Your task to perform on an android device: turn notification dots on Image 0: 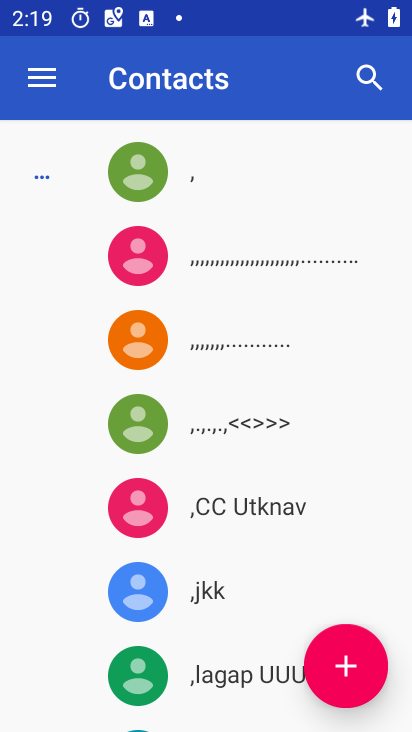
Step 0: press home button
Your task to perform on an android device: turn notification dots on Image 1: 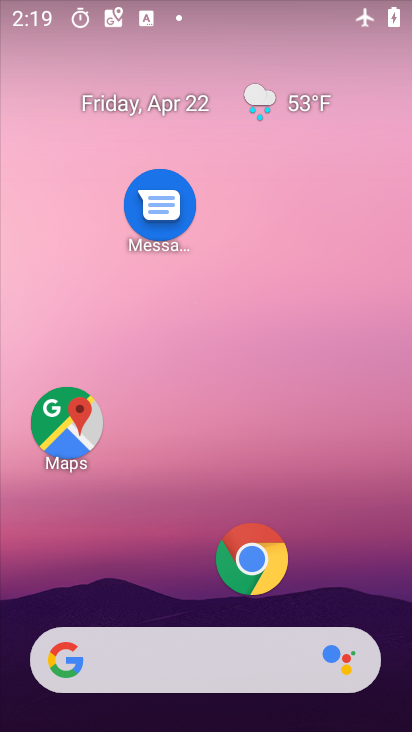
Step 1: drag from (170, 405) to (179, 217)
Your task to perform on an android device: turn notification dots on Image 2: 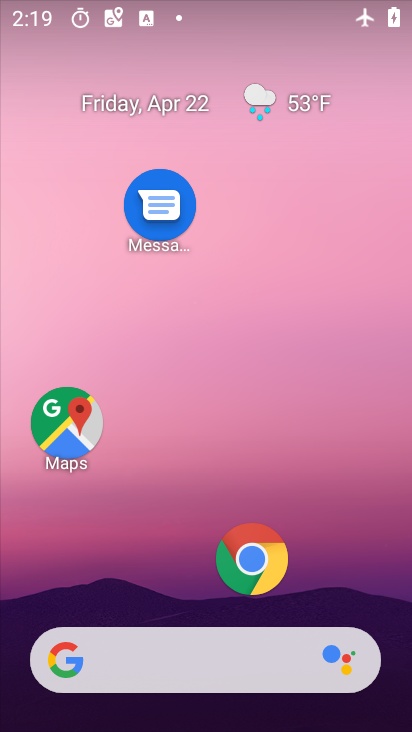
Step 2: drag from (184, 585) to (161, 53)
Your task to perform on an android device: turn notification dots on Image 3: 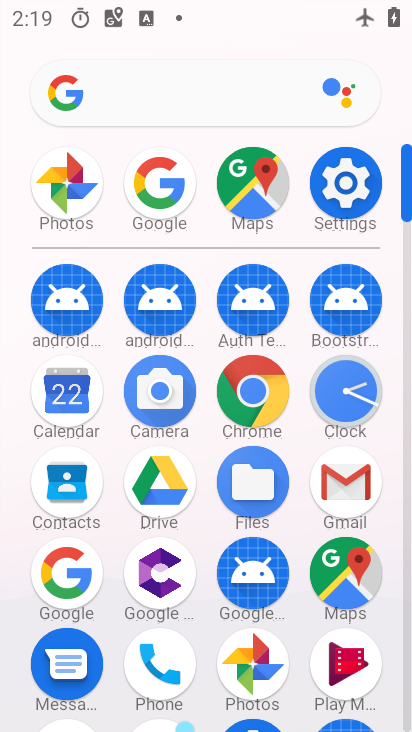
Step 3: click (364, 187)
Your task to perform on an android device: turn notification dots on Image 4: 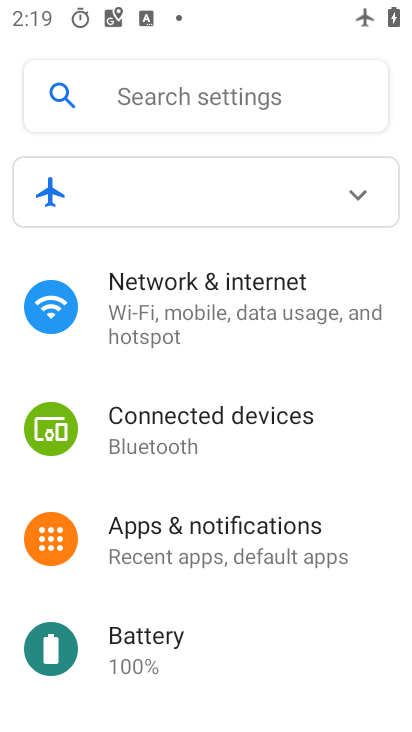
Step 4: click (179, 536)
Your task to perform on an android device: turn notification dots on Image 5: 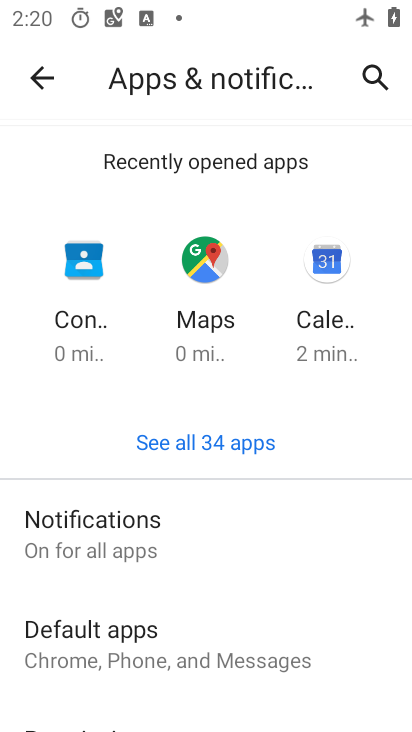
Step 5: drag from (407, 495) to (374, 389)
Your task to perform on an android device: turn notification dots on Image 6: 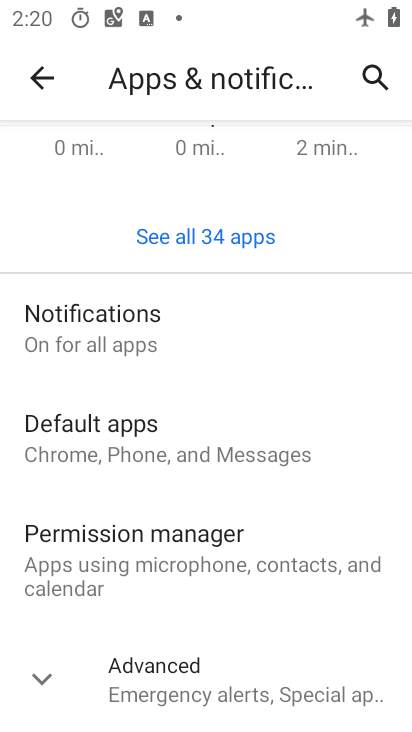
Step 6: click (121, 321)
Your task to perform on an android device: turn notification dots on Image 7: 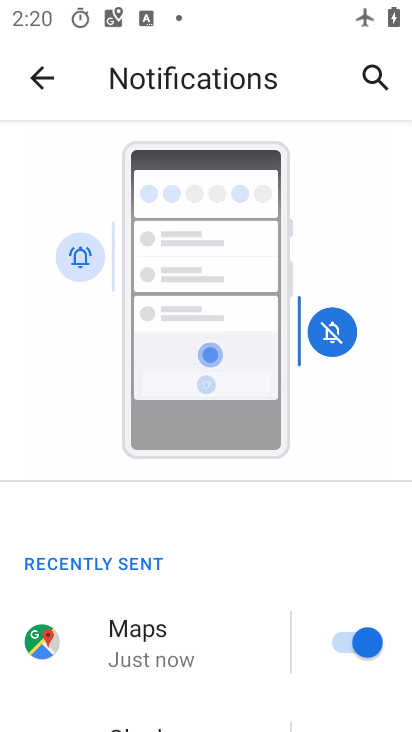
Step 7: drag from (292, 598) to (301, 176)
Your task to perform on an android device: turn notification dots on Image 8: 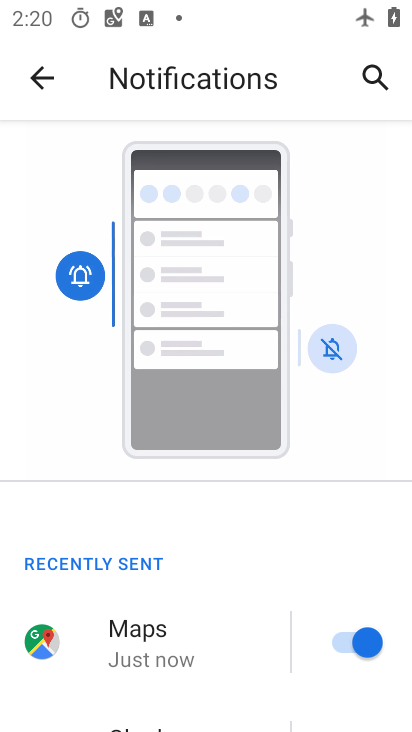
Step 8: drag from (392, 712) to (376, 371)
Your task to perform on an android device: turn notification dots on Image 9: 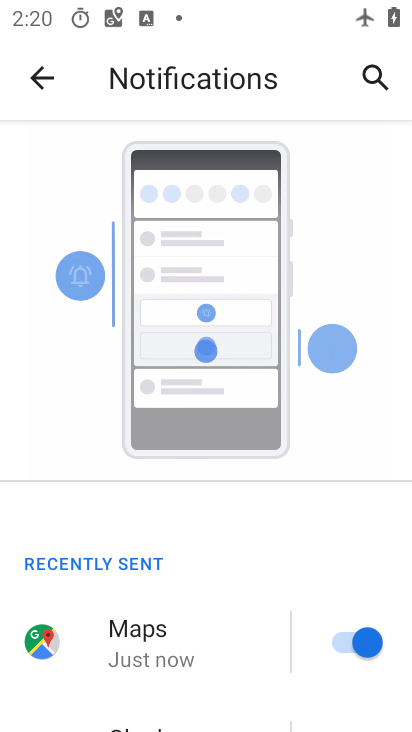
Step 9: drag from (304, 701) to (367, 309)
Your task to perform on an android device: turn notification dots on Image 10: 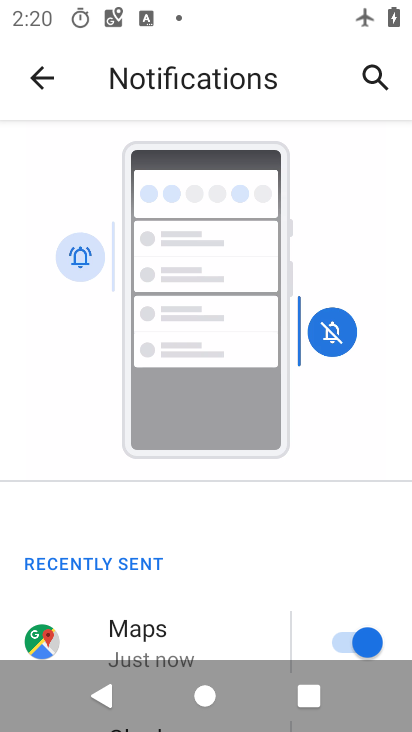
Step 10: drag from (208, 633) to (91, 153)
Your task to perform on an android device: turn notification dots on Image 11: 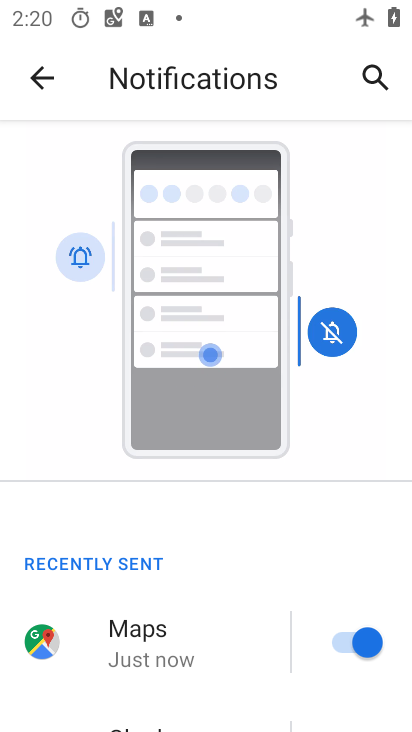
Step 11: drag from (6, 657) to (23, 262)
Your task to perform on an android device: turn notification dots on Image 12: 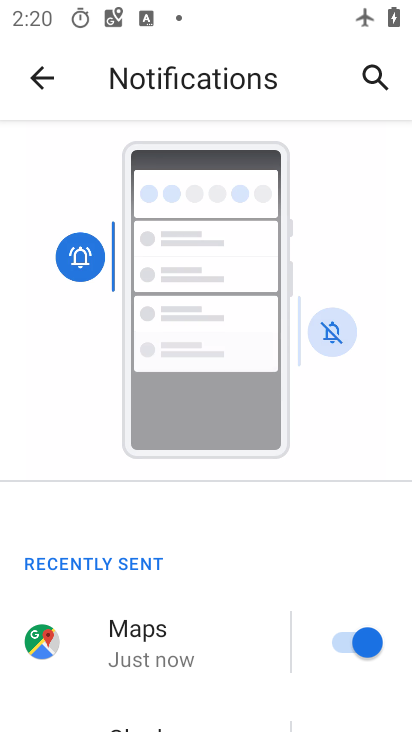
Step 12: drag from (396, 706) to (350, 380)
Your task to perform on an android device: turn notification dots on Image 13: 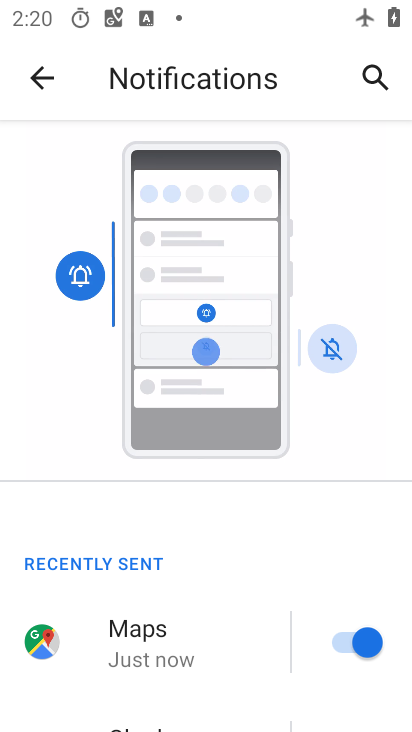
Step 13: drag from (213, 712) to (263, 326)
Your task to perform on an android device: turn notification dots on Image 14: 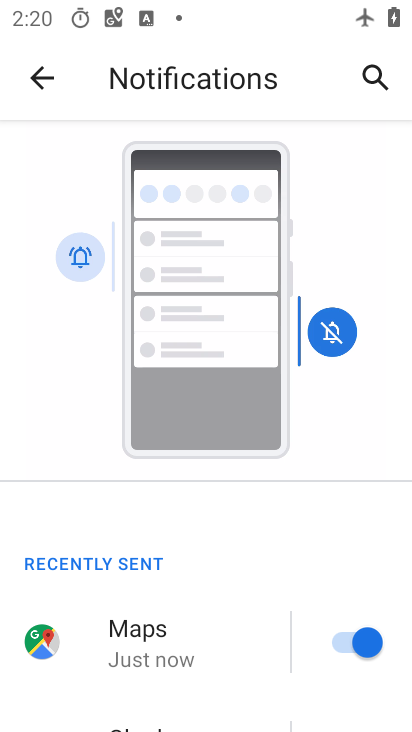
Step 14: drag from (316, 729) to (324, 396)
Your task to perform on an android device: turn notification dots on Image 15: 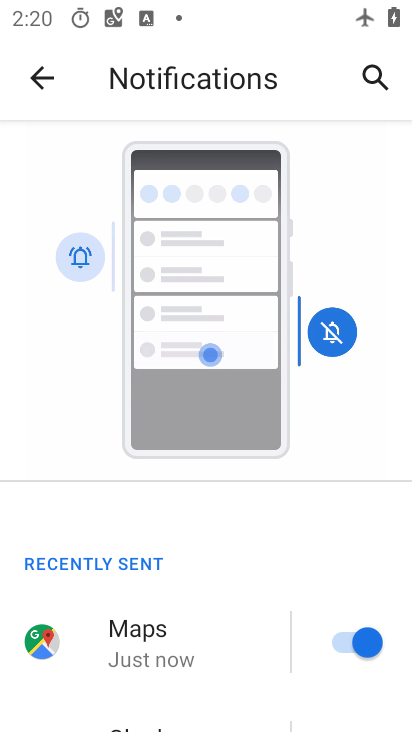
Step 15: drag from (349, 705) to (357, 381)
Your task to perform on an android device: turn notification dots on Image 16: 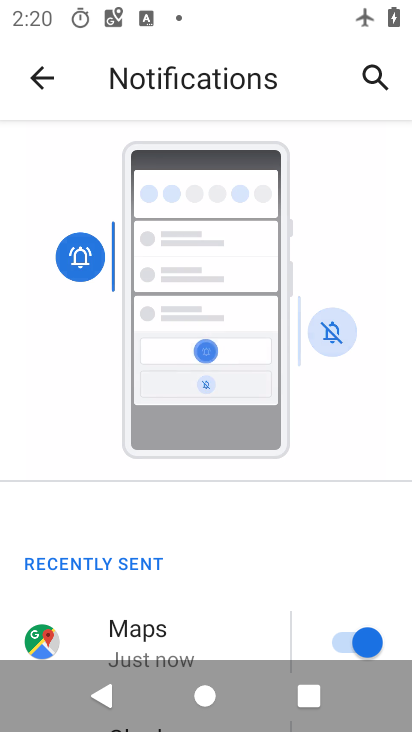
Step 16: drag from (293, 606) to (333, 375)
Your task to perform on an android device: turn notification dots on Image 17: 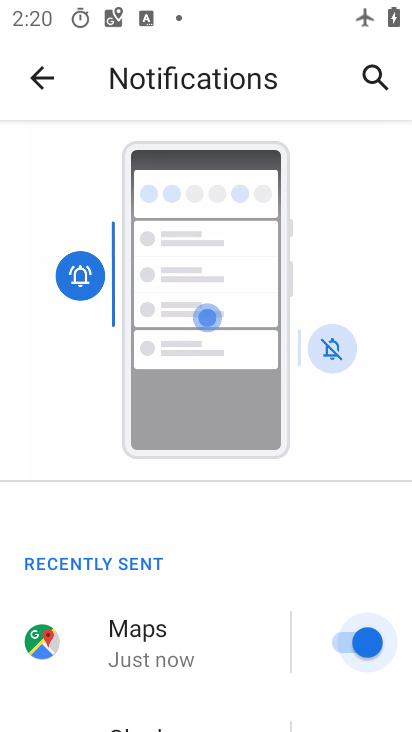
Step 17: drag from (294, 581) to (293, 254)
Your task to perform on an android device: turn notification dots on Image 18: 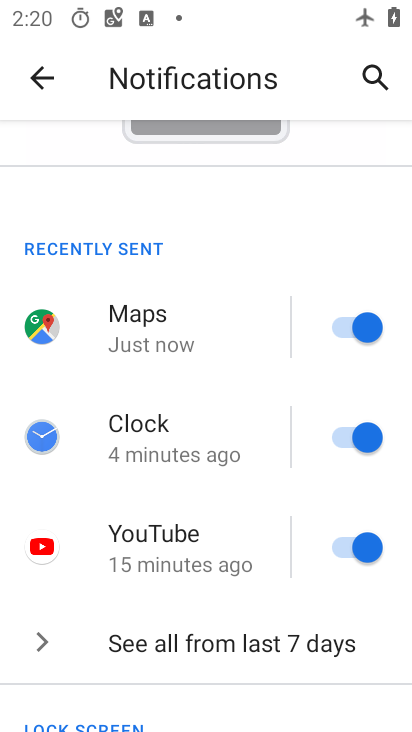
Step 18: drag from (275, 708) to (292, 291)
Your task to perform on an android device: turn notification dots on Image 19: 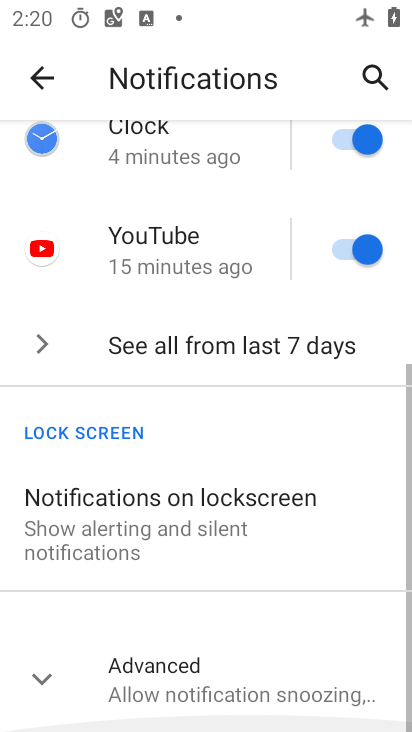
Step 19: drag from (284, 681) to (310, 299)
Your task to perform on an android device: turn notification dots on Image 20: 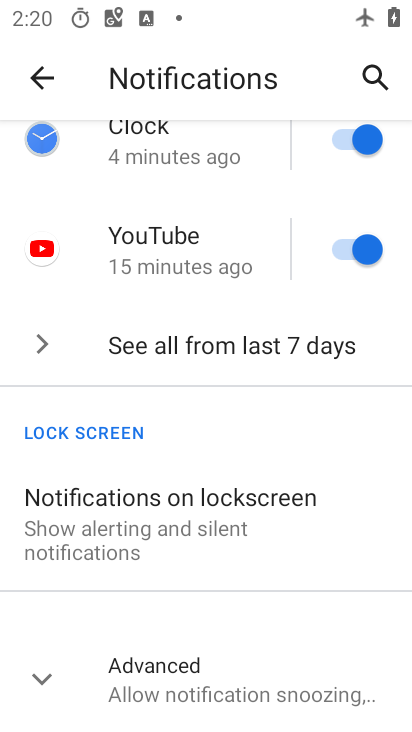
Step 20: click (202, 690)
Your task to perform on an android device: turn notification dots on Image 21: 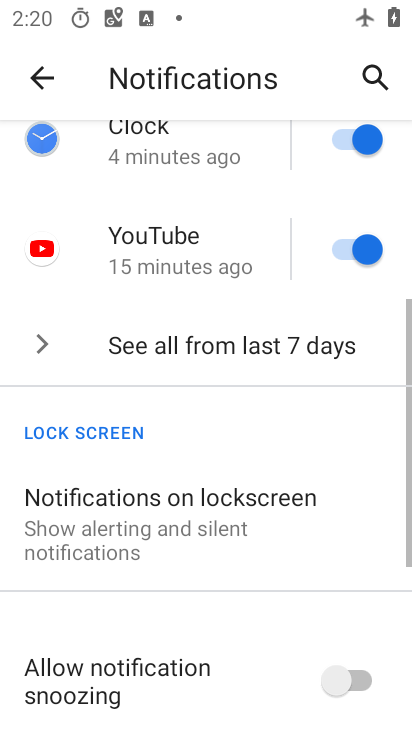
Step 21: task complete